Your task to perform on an android device: change text size in settings app Image 0: 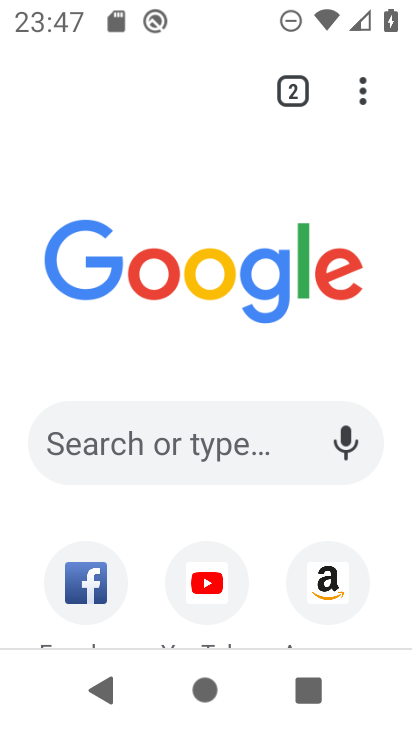
Step 0: press home button
Your task to perform on an android device: change text size in settings app Image 1: 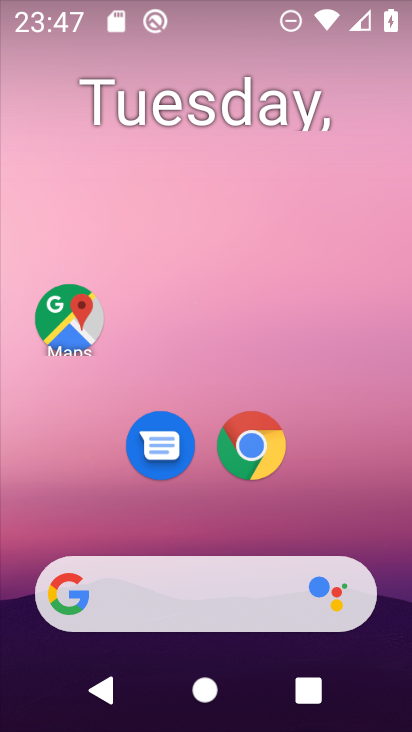
Step 1: drag from (235, 516) to (276, 55)
Your task to perform on an android device: change text size in settings app Image 2: 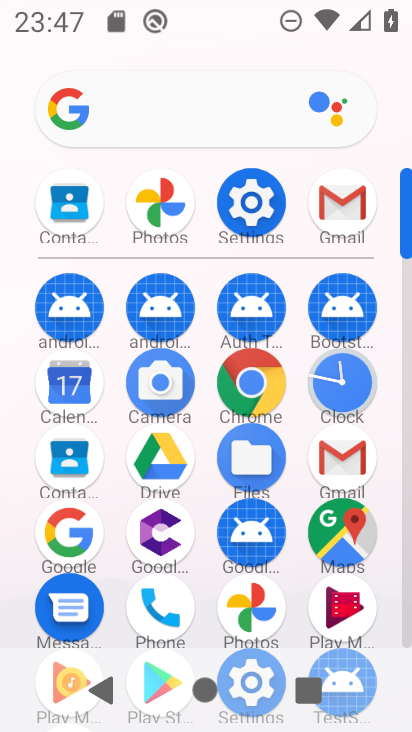
Step 2: click (254, 206)
Your task to perform on an android device: change text size in settings app Image 3: 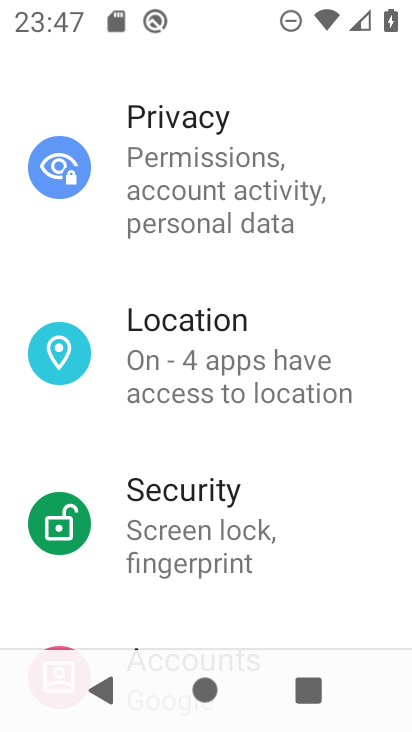
Step 3: drag from (224, 313) to (228, 478)
Your task to perform on an android device: change text size in settings app Image 4: 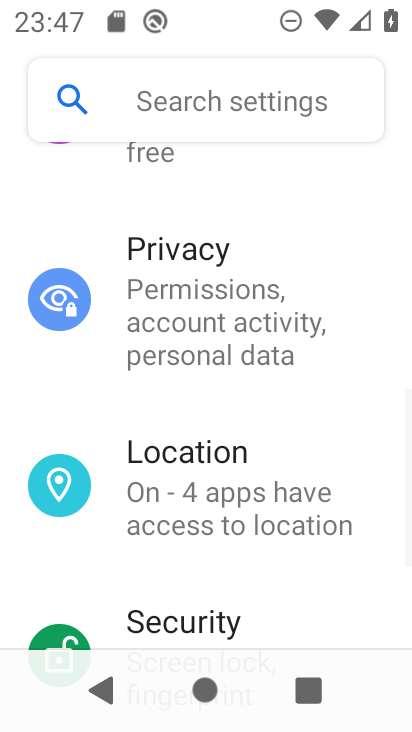
Step 4: drag from (223, 283) to (225, 533)
Your task to perform on an android device: change text size in settings app Image 5: 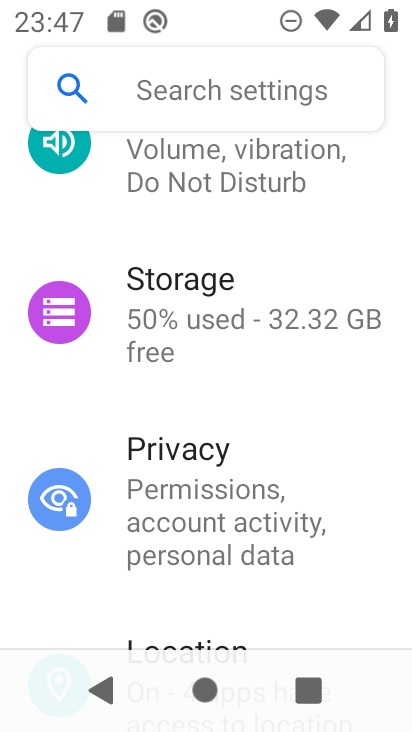
Step 5: drag from (285, 330) to (271, 516)
Your task to perform on an android device: change text size in settings app Image 6: 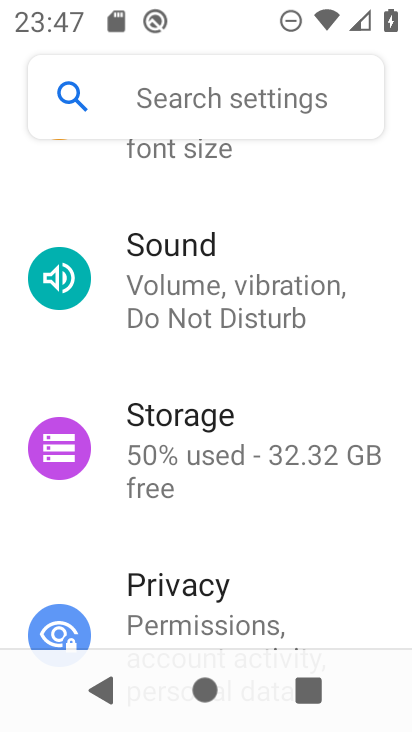
Step 6: drag from (252, 320) to (263, 534)
Your task to perform on an android device: change text size in settings app Image 7: 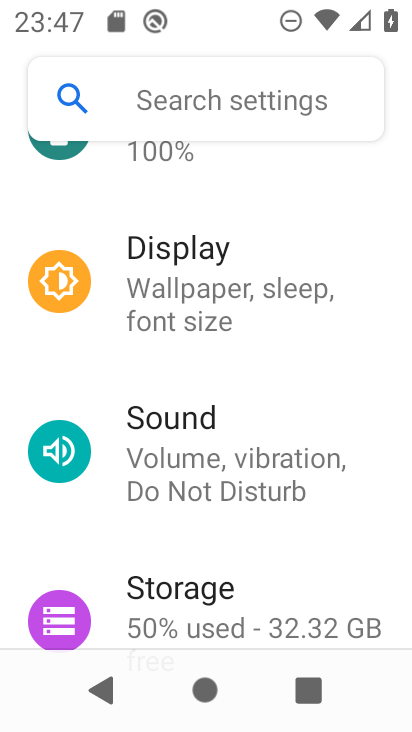
Step 7: click (237, 318)
Your task to perform on an android device: change text size in settings app Image 8: 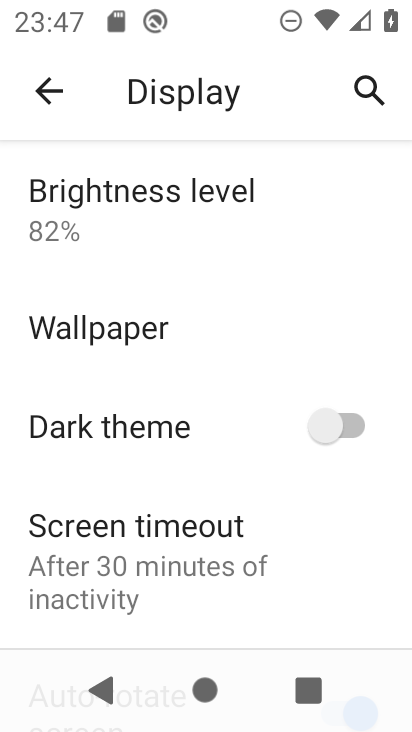
Step 8: drag from (169, 550) to (188, 320)
Your task to perform on an android device: change text size in settings app Image 9: 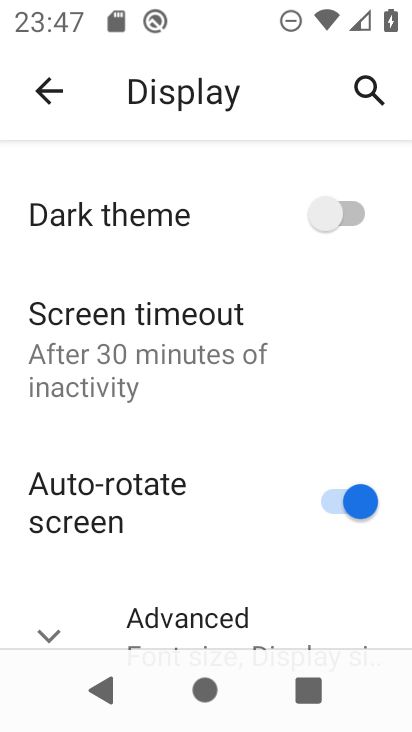
Step 9: drag from (157, 544) to (221, 296)
Your task to perform on an android device: change text size in settings app Image 10: 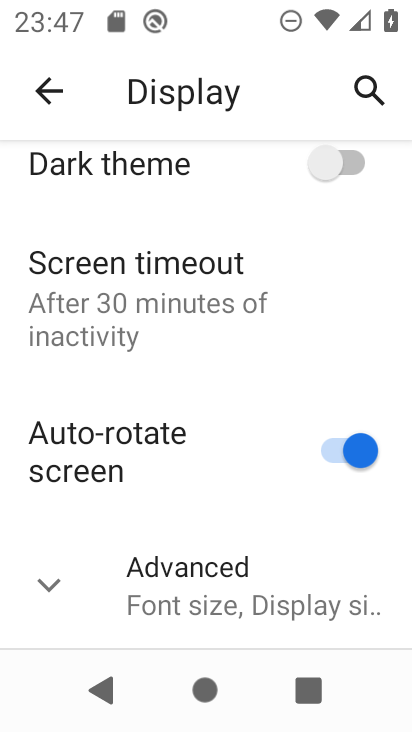
Step 10: click (179, 592)
Your task to perform on an android device: change text size in settings app Image 11: 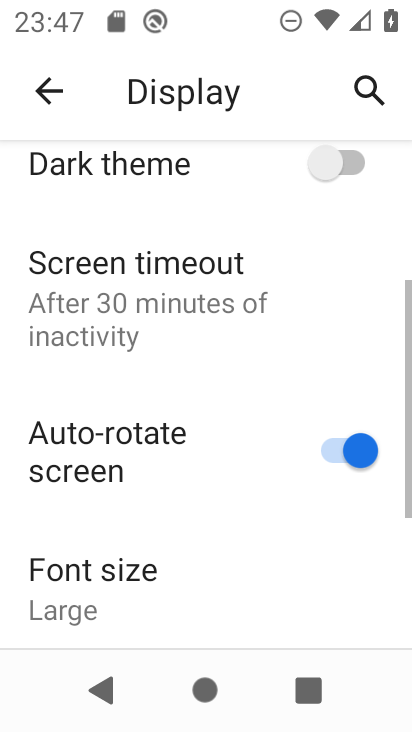
Step 11: click (169, 584)
Your task to perform on an android device: change text size in settings app Image 12: 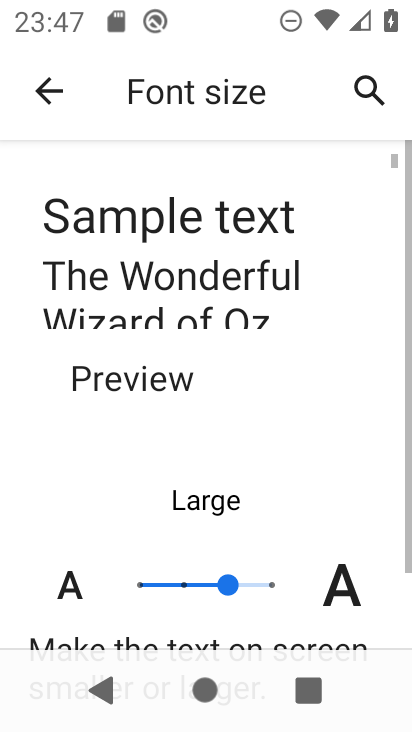
Step 12: click (177, 581)
Your task to perform on an android device: change text size in settings app Image 13: 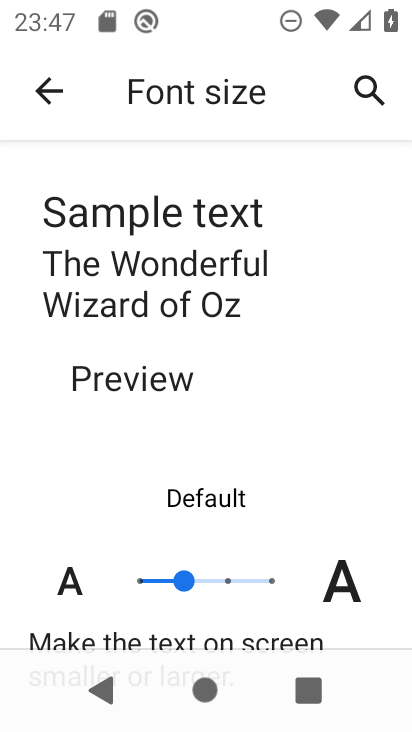
Step 13: task complete